Your task to perform on an android device: Open the stopwatch Image 0: 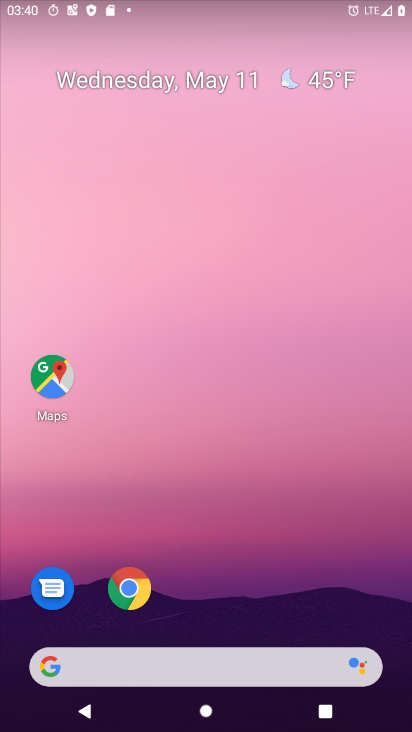
Step 0: drag from (254, 604) to (253, 232)
Your task to perform on an android device: Open the stopwatch Image 1: 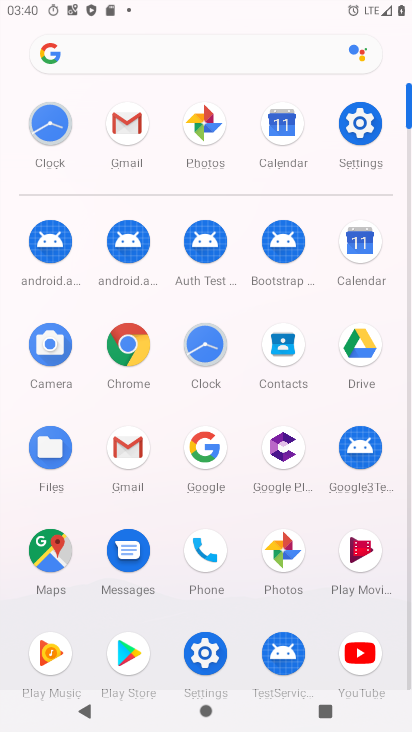
Step 1: click (213, 330)
Your task to perform on an android device: Open the stopwatch Image 2: 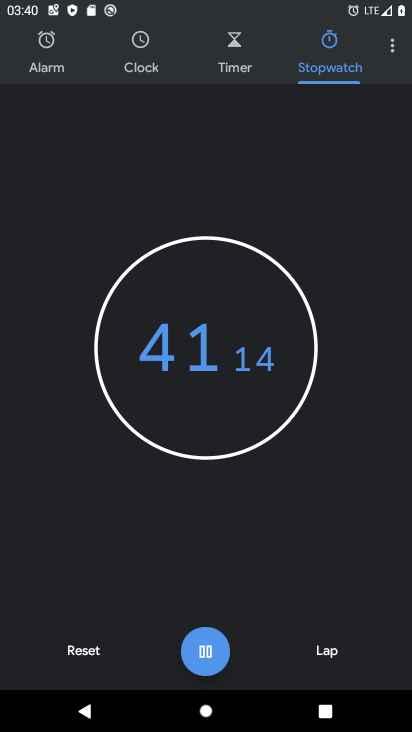
Step 2: task complete